Your task to perform on an android device: add a contact in the contacts app Image 0: 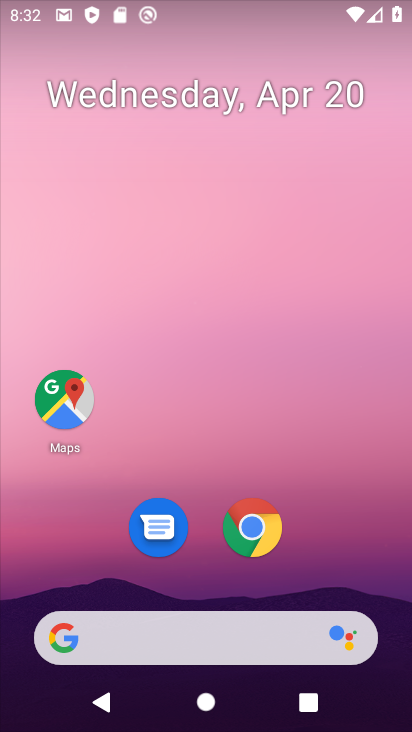
Step 0: drag from (351, 547) to (294, 4)
Your task to perform on an android device: add a contact in the contacts app Image 1: 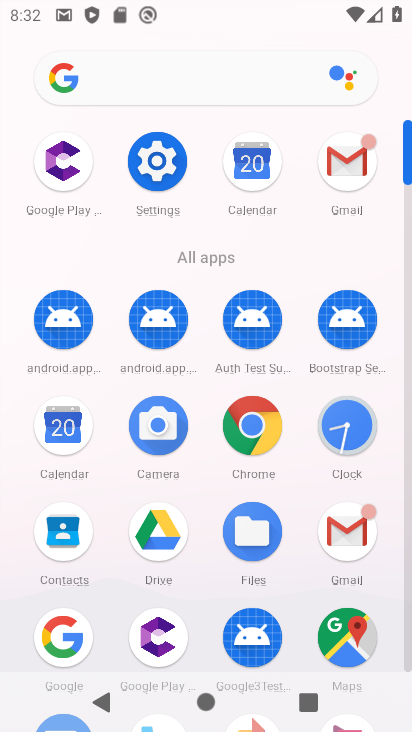
Step 1: click (60, 522)
Your task to perform on an android device: add a contact in the contacts app Image 2: 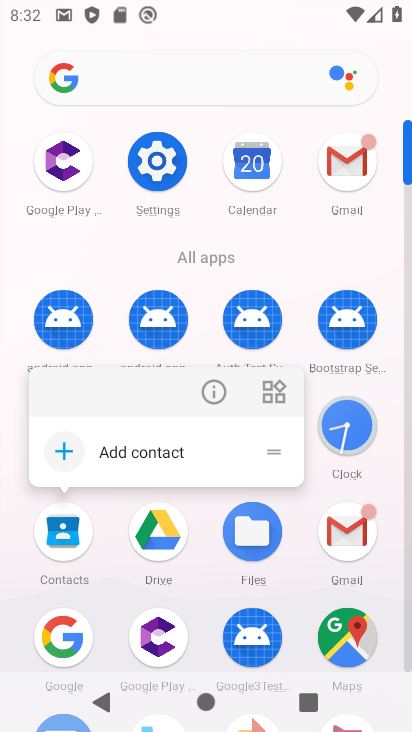
Step 2: click (137, 457)
Your task to perform on an android device: add a contact in the contacts app Image 3: 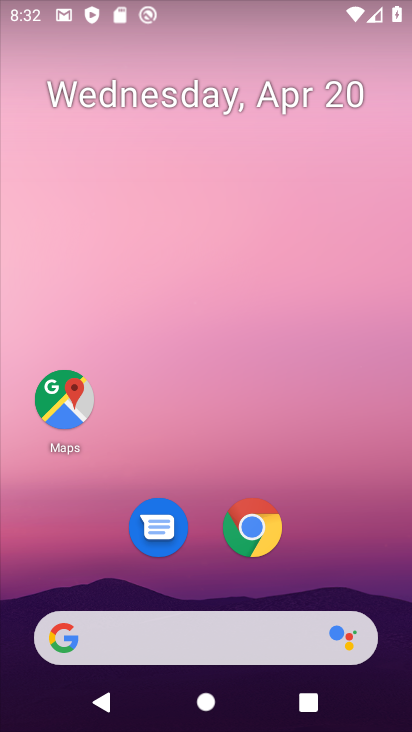
Step 3: drag from (308, 215) to (292, 8)
Your task to perform on an android device: add a contact in the contacts app Image 4: 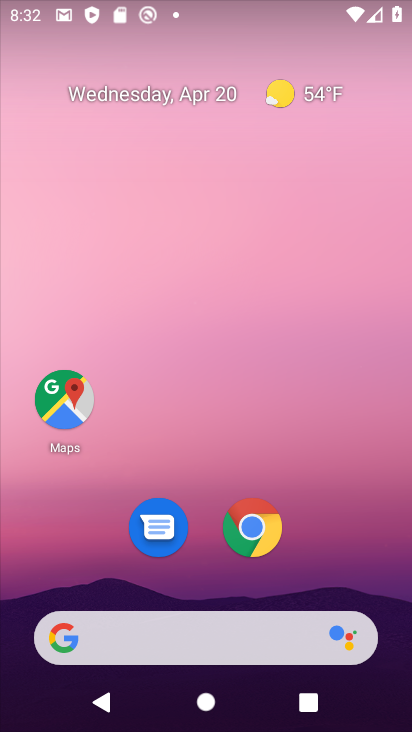
Step 4: drag from (324, 414) to (292, 36)
Your task to perform on an android device: add a contact in the contacts app Image 5: 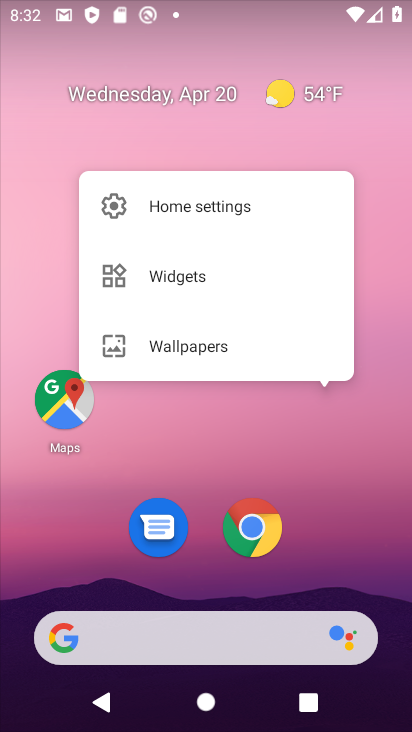
Step 5: drag from (341, 507) to (315, 116)
Your task to perform on an android device: add a contact in the contacts app Image 6: 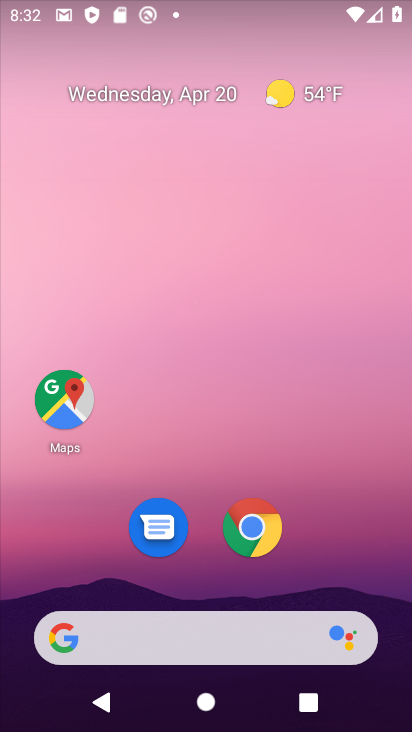
Step 6: drag from (363, 539) to (411, 361)
Your task to perform on an android device: add a contact in the contacts app Image 7: 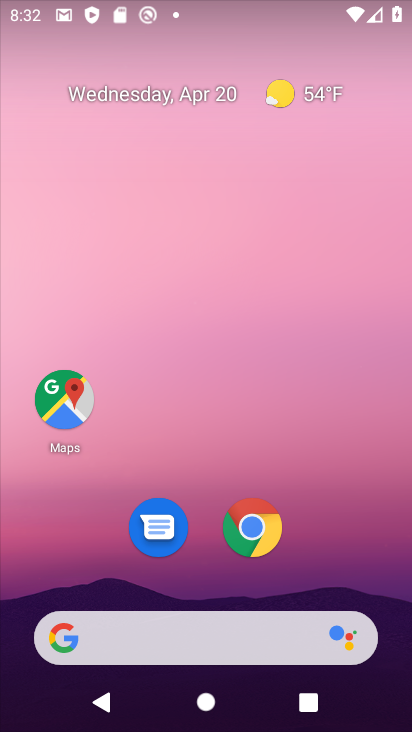
Step 7: drag from (280, 356) to (286, 29)
Your task to perform on an android device: add a contact in the contacts app Image 8: 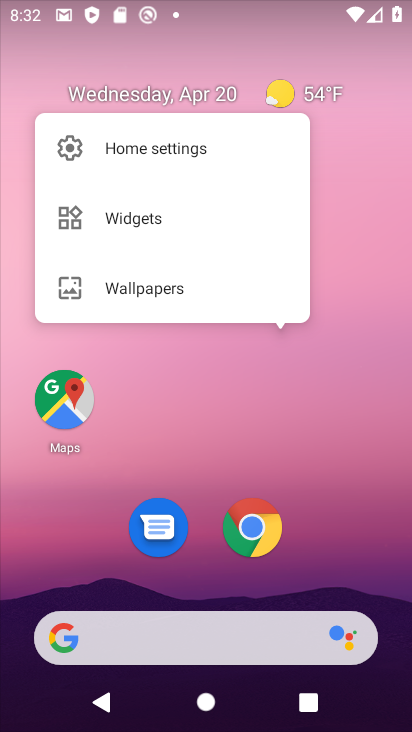
Step 8: drag from (335, 530) to (366, 48)
Your task to perform on an android device: add a contact in the contacts app Image 9: 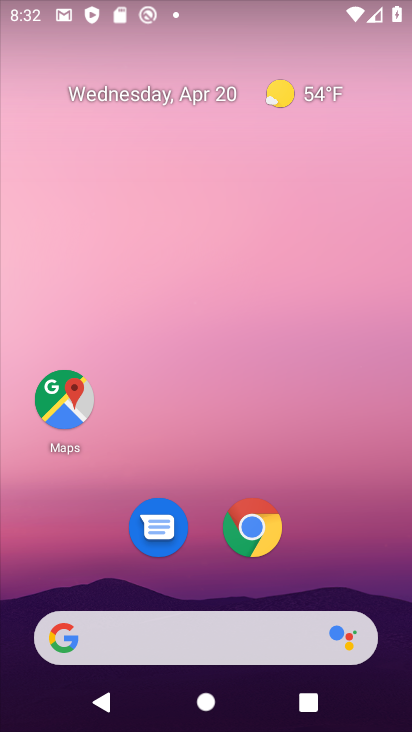
Step 9: drag from (343, 546) to (311, 13)
Your task to perform on an android device: add a contact in the contacts app Image 10: 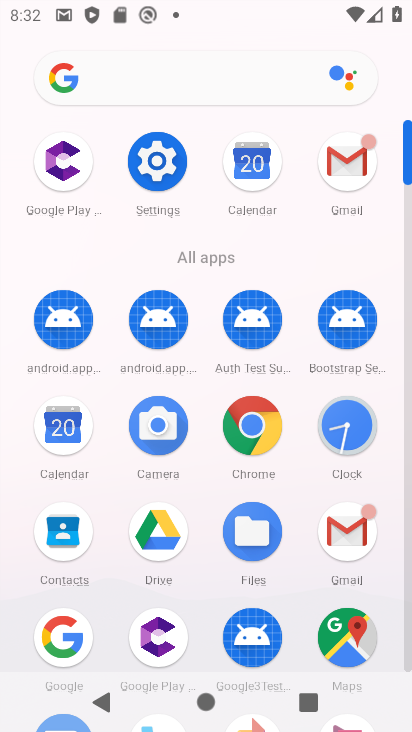
Step 10: click (75, 522)
Your task to perform on an android device: add a contact in the contacts app Image 11: 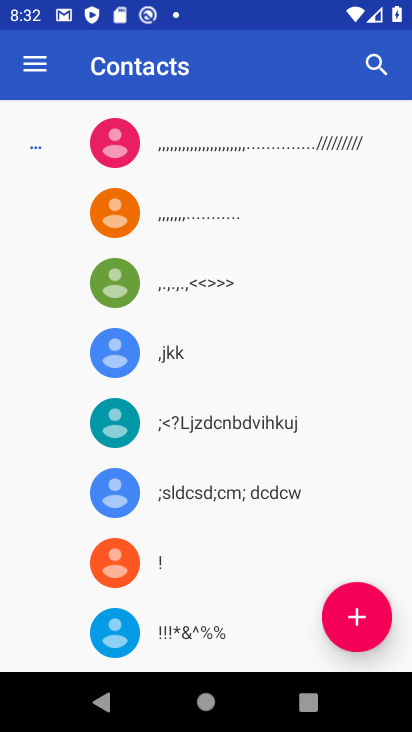
Step 11: click (356, 618)
Your task to perform on an android device: add a contact in the contacts app Image 12: 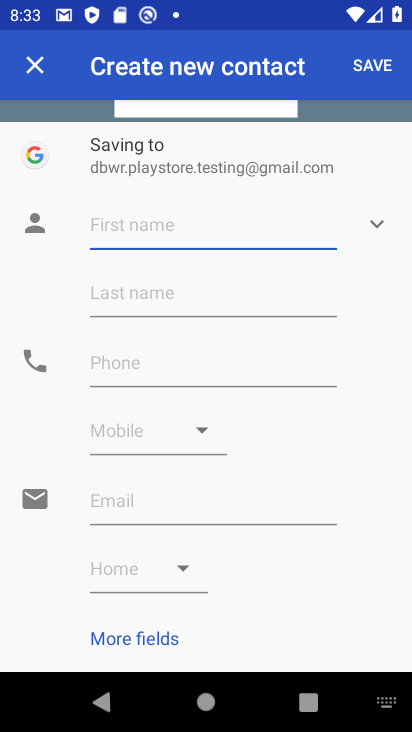
Step 12: click (350, 611)
Your task to perform on an android device: add a contact in the contacts app Image 13: 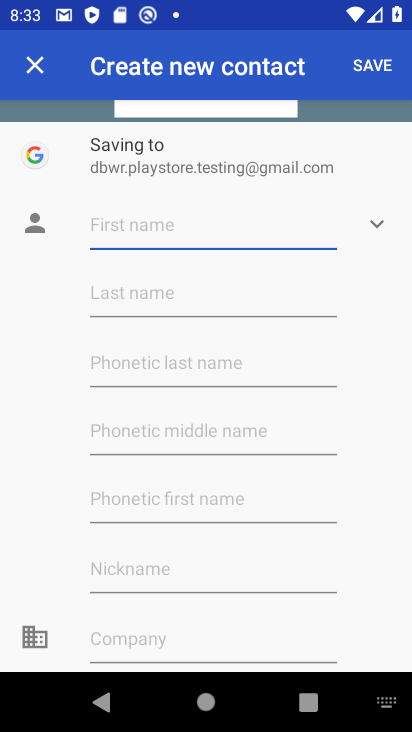
Step 13: type "priyanshu"
Your task to perform on an android device: add a contact in the contacts app Image 14: 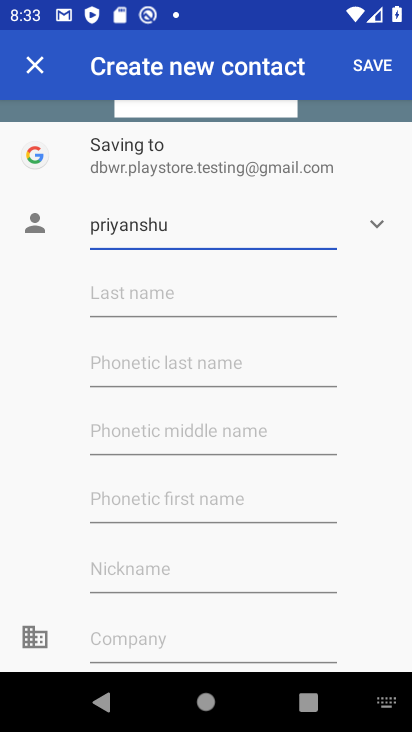
Step 14: drag from (262, 554) to (229, 206)
Your task to perform on an android device: add a contact in the contacts app Image 15: 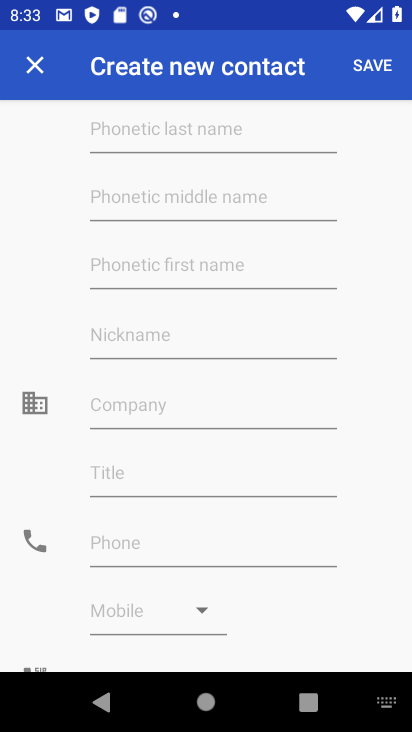
Step 15: click (164, 266)
Your task to perform on an android device: add a contact in the contacts app Image 16: 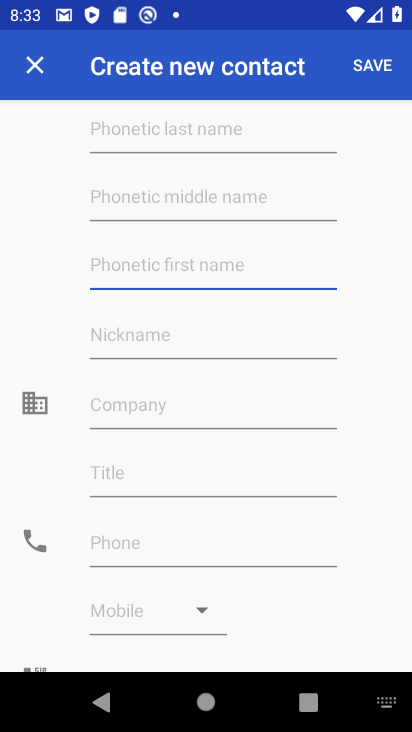
Step 16: click (157, 561)
Your task to perform on an android device: add a contact in the contacts app Image 17: 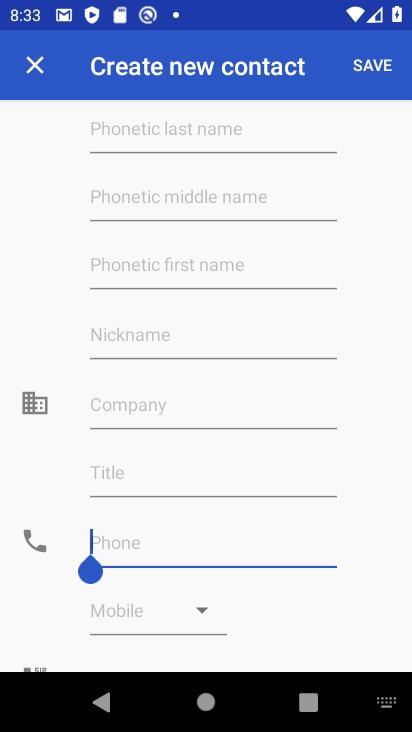
Step 17: click (136, 541)
Your task to perform on an android device: add a contact in the contacts app Image 18: 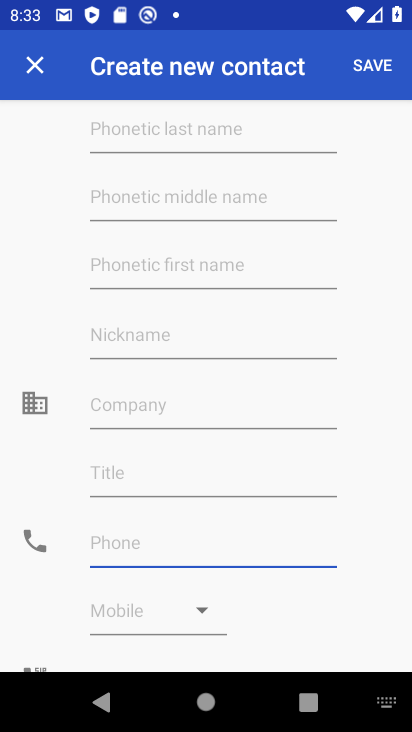
Step 18: type "1222"
Your task to perform on an android device: add a contact in the contacts app Image 19: 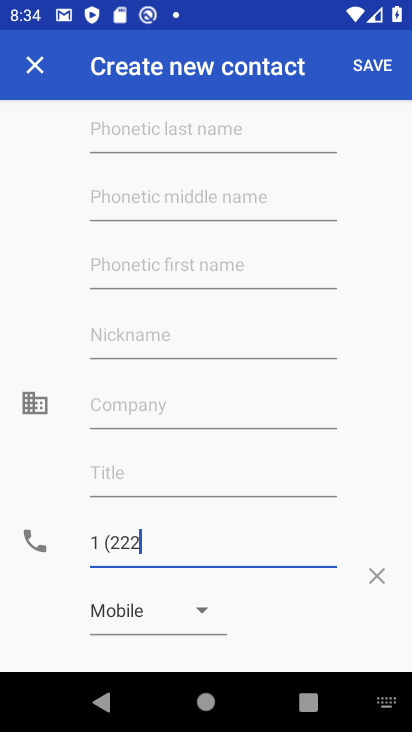
Step 19: click (373, 54)
Your task to perform on an android device: add a contact in the contacts app Image 20: 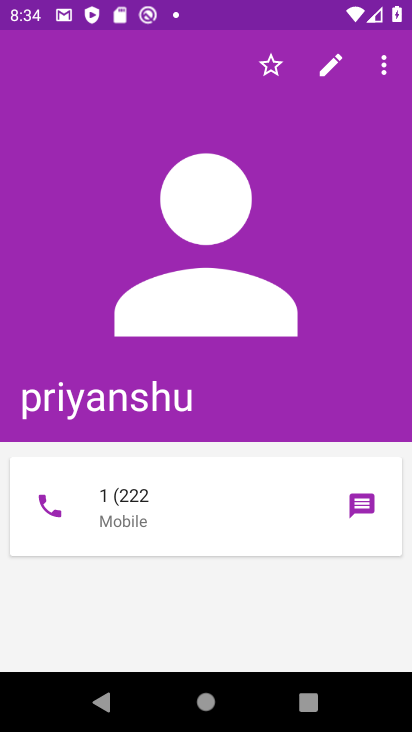
Step 20: task complete